Your task to perform on an android device: turn smart compose on in the gmail app Image 0: 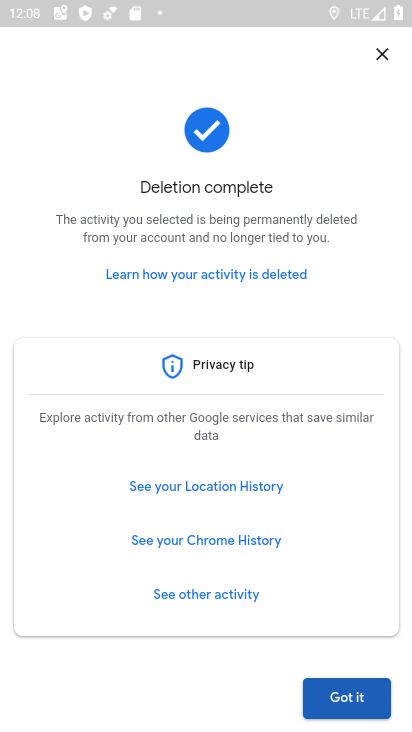
Step 0: press home button
Your task to perform on an android device: turn smart compose on in the gmail app Image 1: 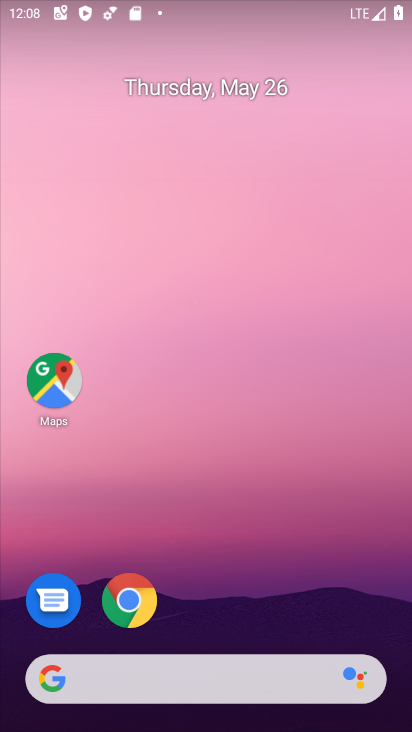
Step 1: drag from (299, 533) to (301, 135)
Your task to perform on an android device: turn smart compose on in the gmail app Image 2: 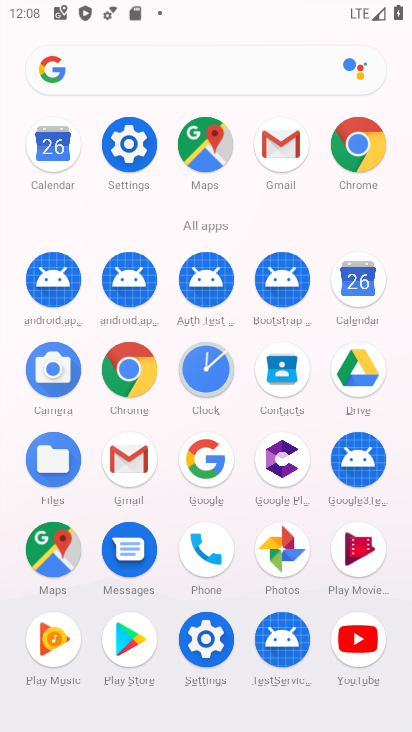
Step 2: click (291, 138)
Your task to perform on an android device: turn smart compose on in the gmail app Image 3: 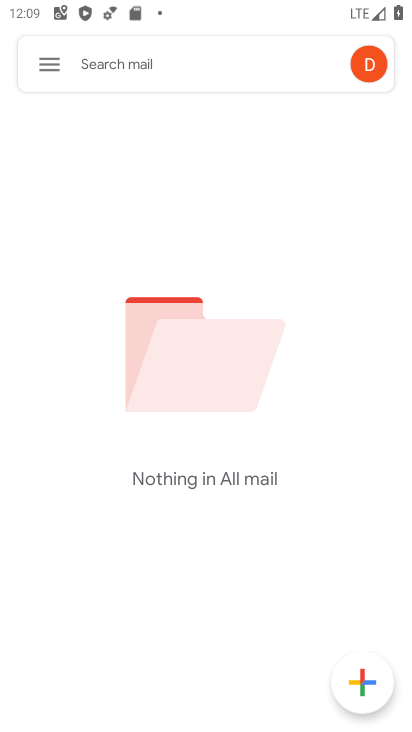
Step 3: click (50, 60)
Your task to perform on an android device: turn smart compose on in the gmail app Image 4: 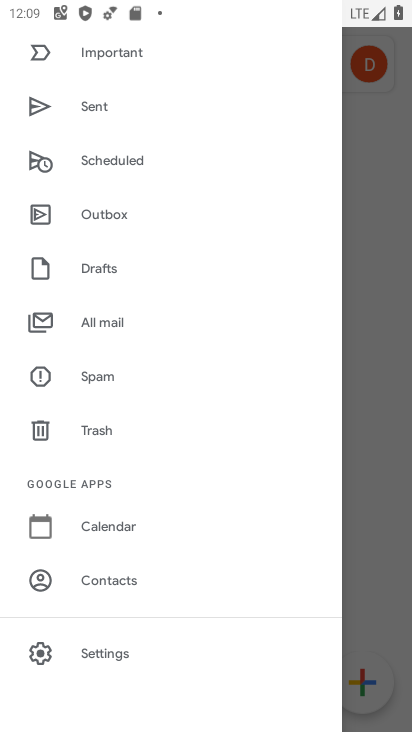
Step 4: drag from (126, 539) to (213, 183)
Your task to perform on an android device: turn smart compose on in the gmail app Image 5: 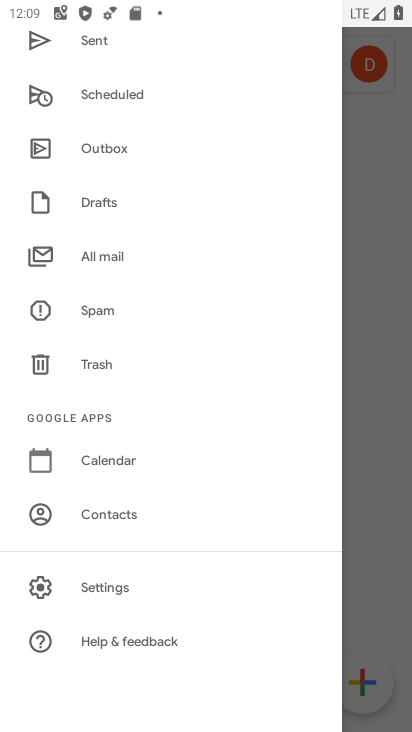
Step 5: click (100, 592)
Your task to perform on an android device: turn smart compose on in the gmail app Image 6: 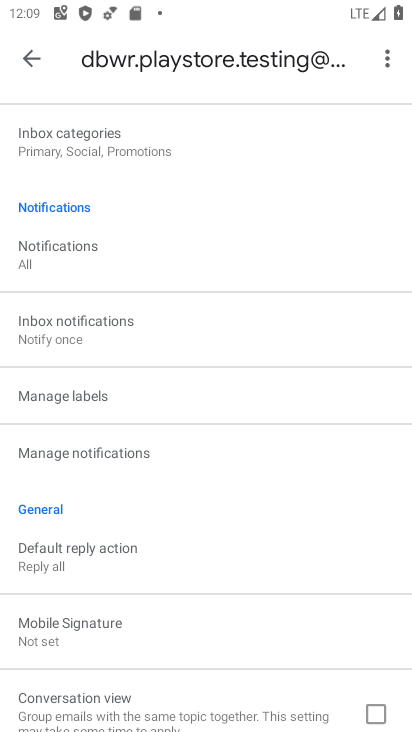
Step 6: task complete